Your task to perform on an android device: choose inbox layout in the gmail app Image 0: 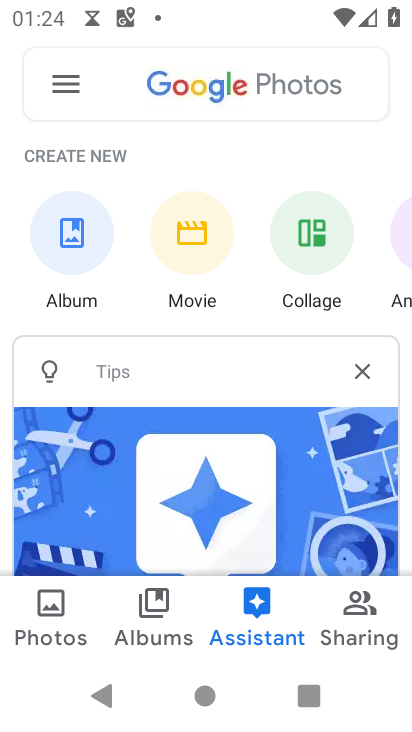
Step 0: press home button
Your task to perform on an android device: choose inbox layout in the gmail app Image 1: 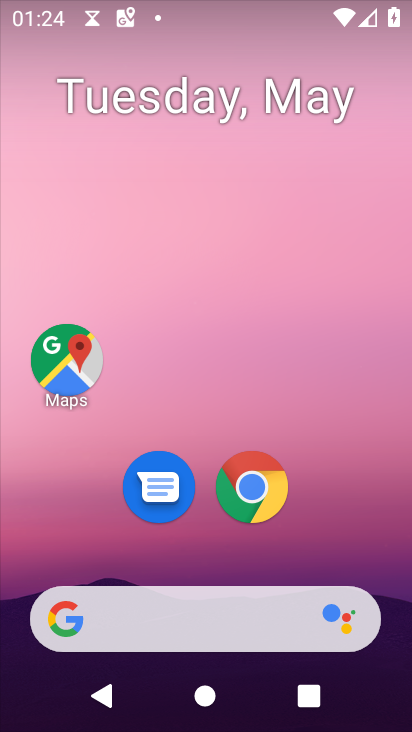
Step 1: drag from (317, 529) to (310, 336)
Your task to perform on an android device: choose inbox layout in the gmail app Image 2: 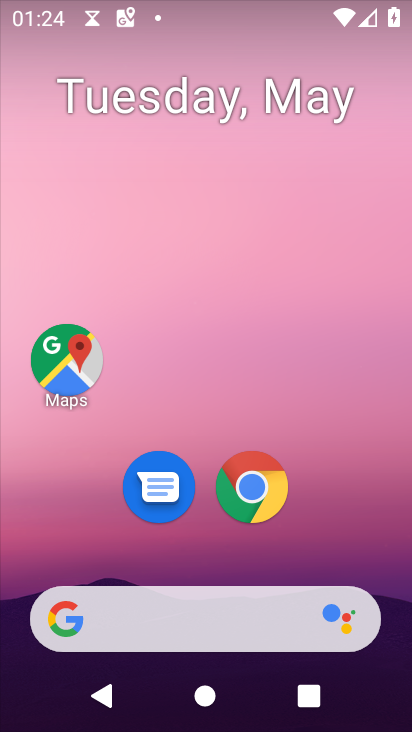
Step 2: drag from (236, 544) to (363, 81)
Your task to perform on an android device: choose inbox layout in the gmail app Image 3: 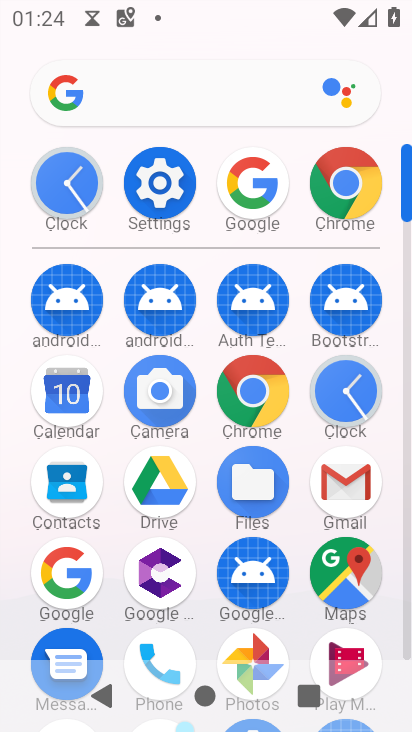
Step 3: click (335, 491)
Your task to perform on an android device: choose inbox layout in the gmail app Image 4: 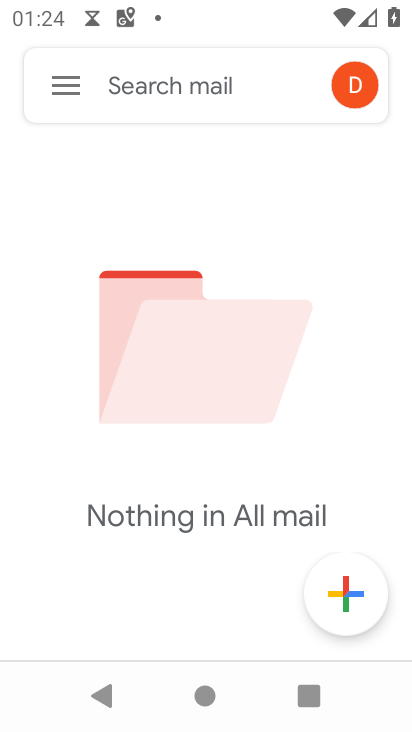
Step 4: click (78, 84)
Your task to perform on an android device: choose inbox layout in the gmail app Image 5: 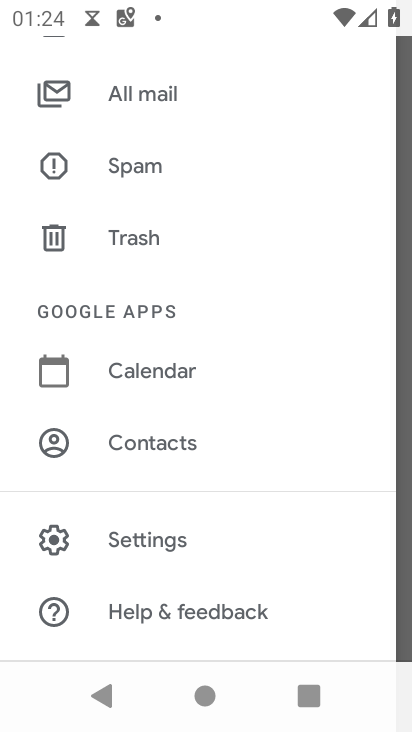
Step 5: click (166, 87)
Your task to perform on an android device: choose inbox layout in the gmail app Image 6: 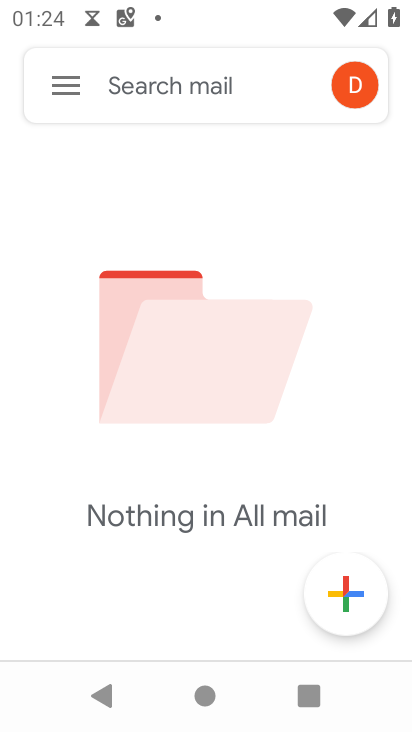
Step 6: task complete